Your task to perform on an android device: find which apps use the phone's location Image 0: 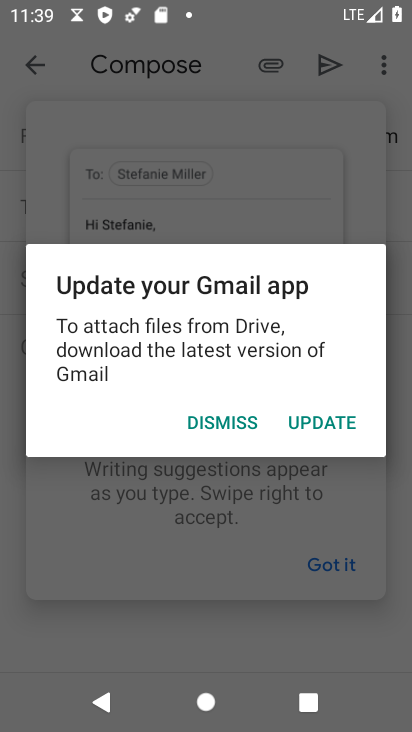
Step 0: press home button
Your task to perform on an android device: find which apps use the phone's location Image 1: 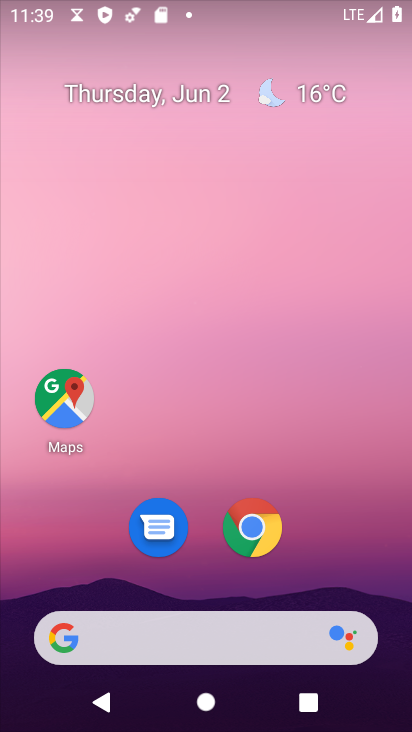
Step 1: drag from (240, 626) to (176, 102)
Your task to perform on an android device: find which apps use the phone's location Image 2: 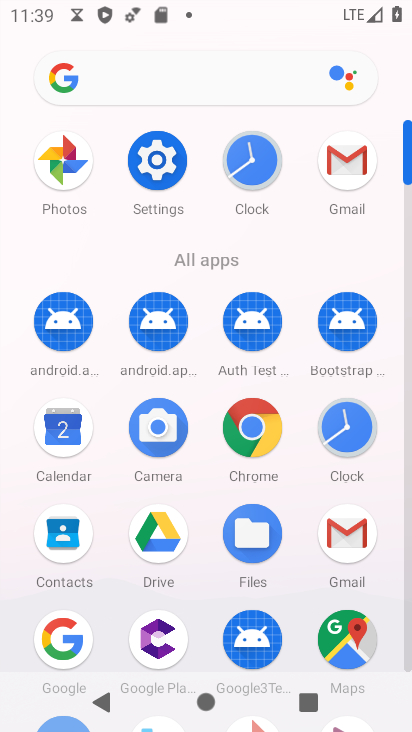
Step 2: click (177, 164)
Your task to perform on an android device: find which apps use the phone's location Image 3: 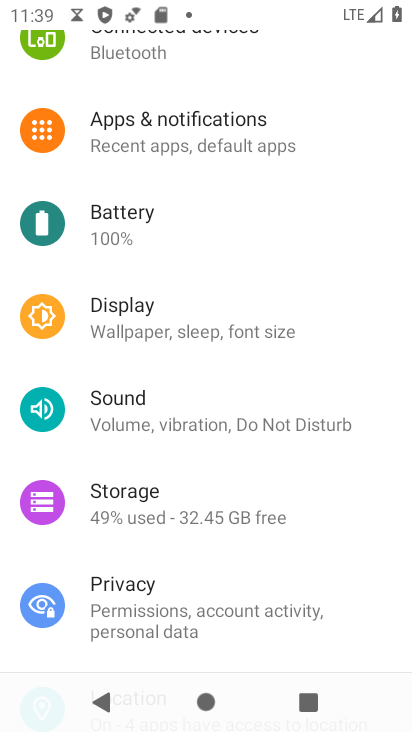
Step 3: drag from (126, 246) to (128, 638)
Your task to perform on an android device: find which apps use the phone's location Image 4: 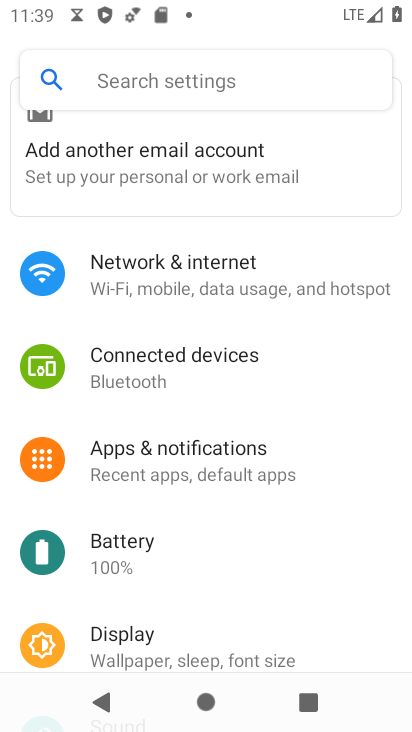
Step 4: drag from (134, 548) to (23, 10)
Your task to perform on an android device: find which apps use the phone's location Image 5: 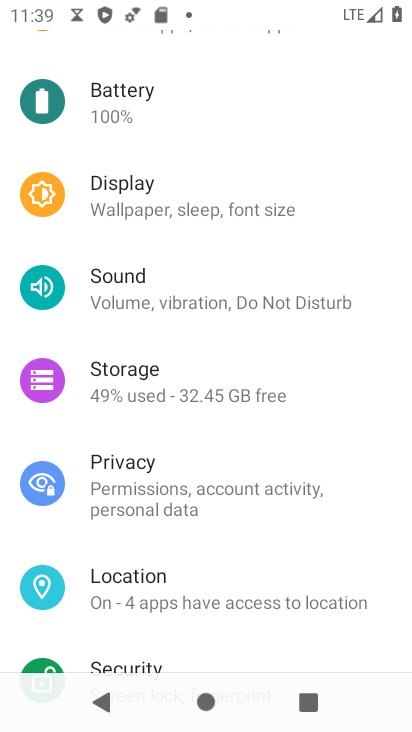
Step 5: click (139, 587)
Your task to perform on an android device: find which apps use the phone's location Image 6: 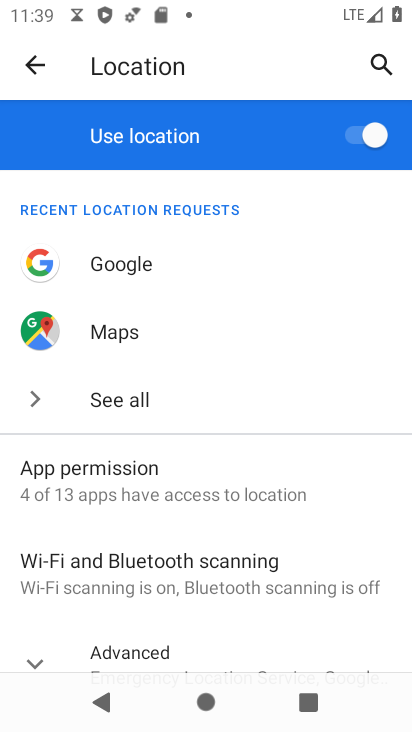
Step 6: click (130, 479)
Your task to perform on an android device: find which apps use the phone's location Image 7: 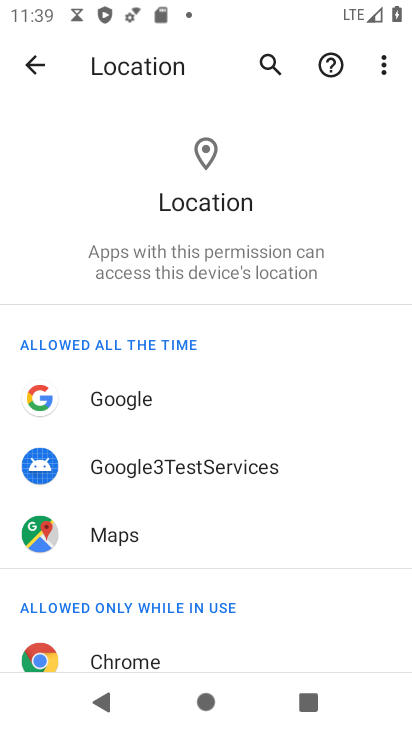
Step 7: task complete